Your task to perform on an android device: Open network settings Image 0: 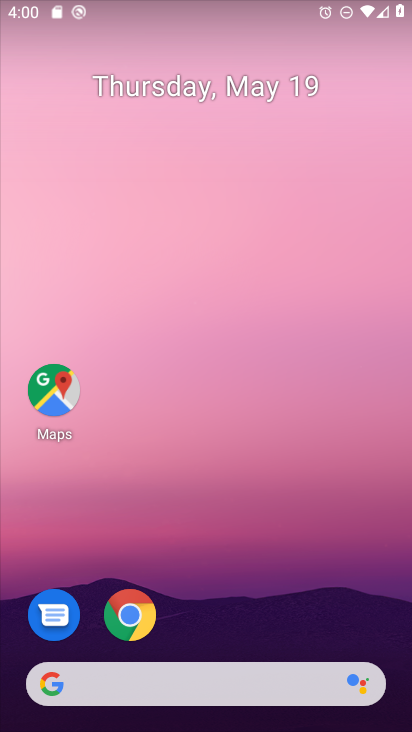
Step 0: drag from (260, 642) to (219, 48)
Your task to perform on an android device: Open network settings Image 1: 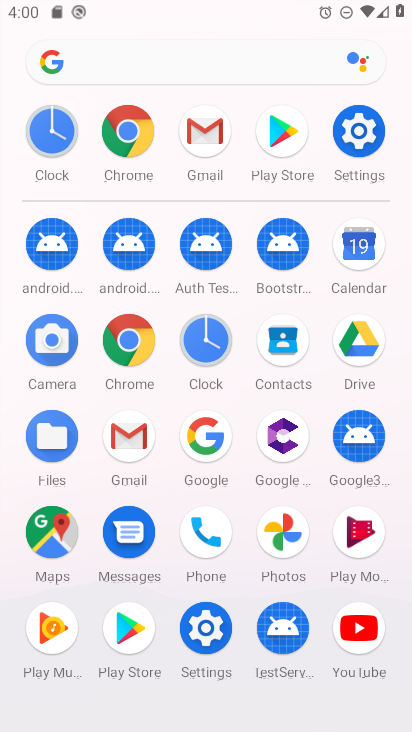
Step 1: click (374, 149)
Your task to perform on an android device: Open network settings Image 2: 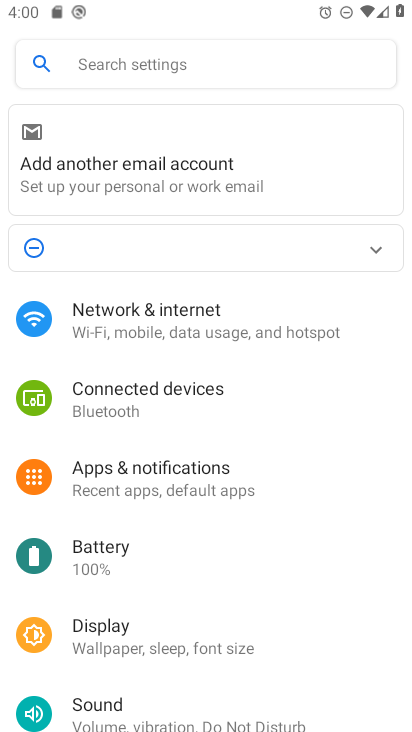
Step 2: click (127, 322)
Your task to perform on an android device: Open network settings Image 3: 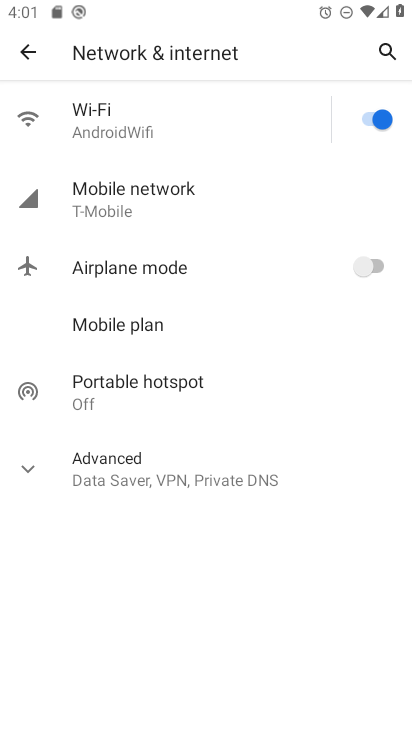
Step 3: task complete